Your task to perform on an android device: see tabs open on other devices in the chrome app Image 0: 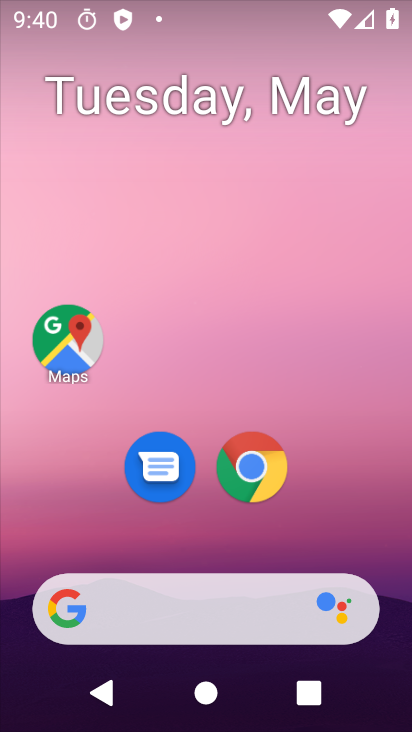
Step 0: drag from (341, 510) to (256, 9)
Your task to perform on an android device: see tabs open on other devices in the chrome app Image 1: 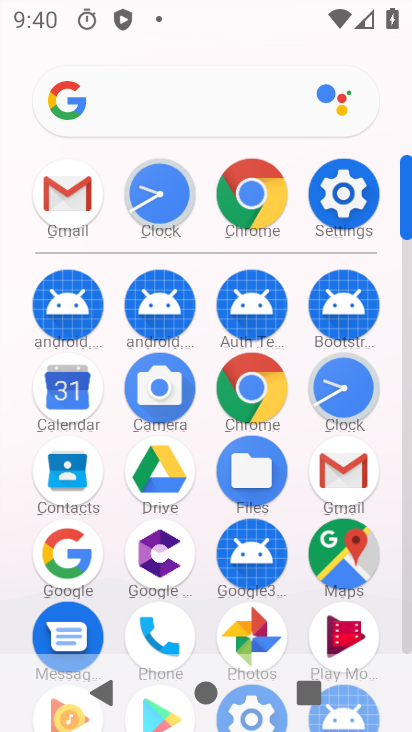
Step 1: drag from (14, 498) to (22, 202)
Your task to perform on an android device: see tabs open on other devices in the chrome app Image 2: 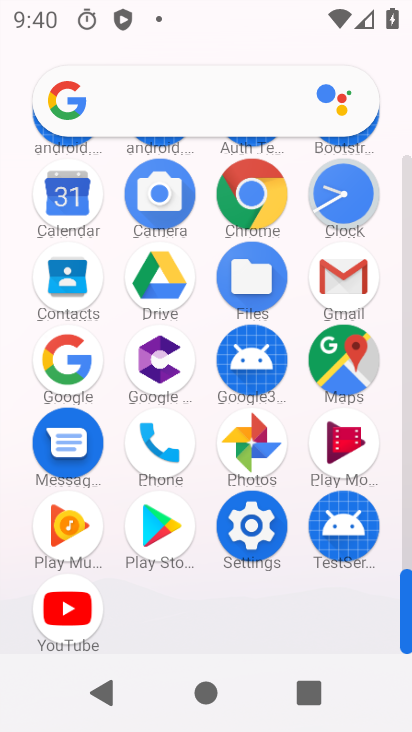
Step 2: click (251, 190)
Your task to perform on an android device: see tabs open on other devices in the chrome app Image 3: 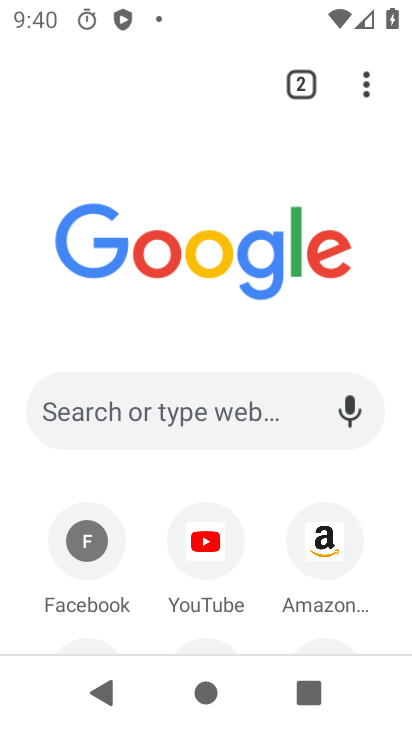
Step 3: task complete